Your task to perform on an android device: turn off translation in the chrome app Image 0: 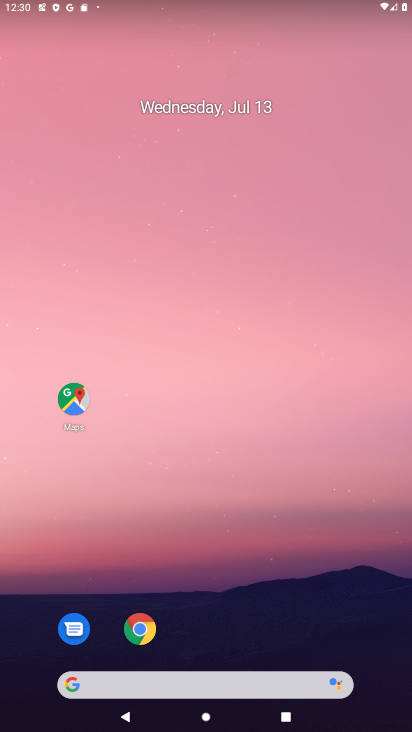
Step 0: drag from (216, 621) to (216, 287)
Your task to perform on an android device: turn off translation in the chrome app Image 1: 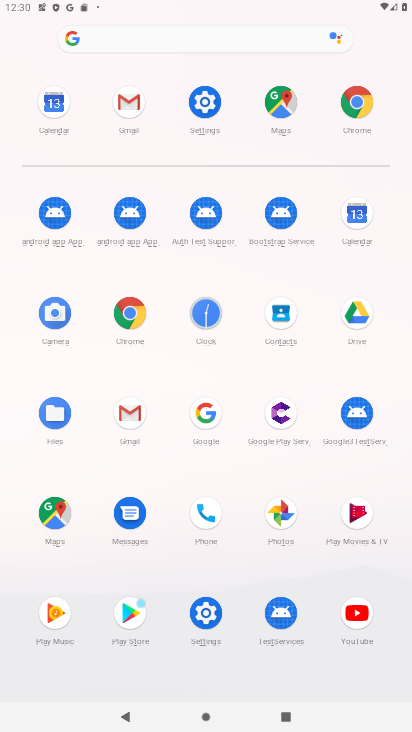
Step 1: click (358, 90)
Your task to perform on an android device: turn off translation in the chrome app Image 2: 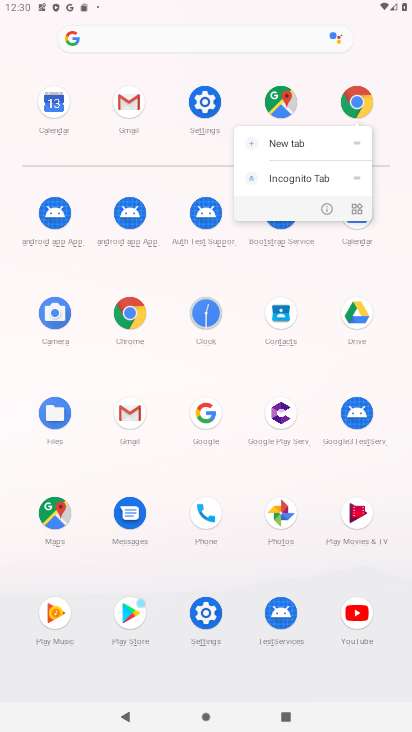
Step 2: click (360, 94)
Your task to perform on an android device: turn off translation in the chrome app Image 3: 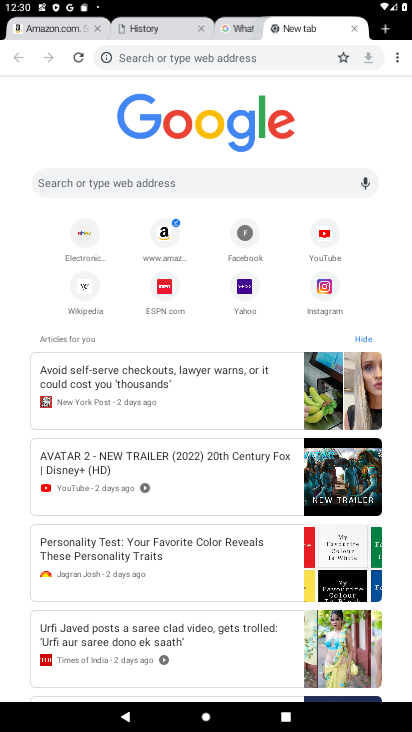
Step 3: click (403, 51)
Your task to perform on an android device: turn off translation in the chrome app Image 4: 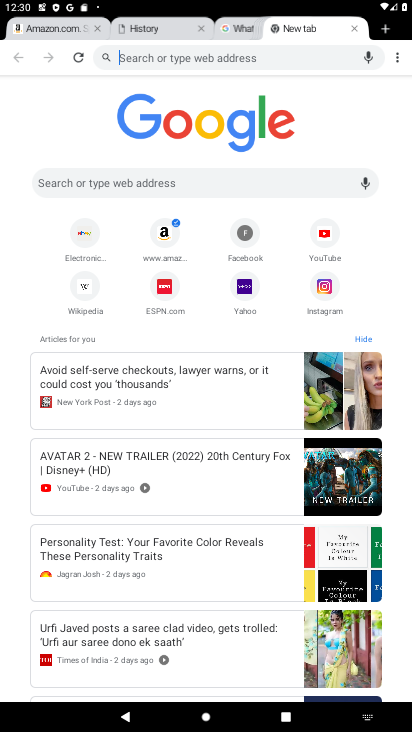
Step 4: click (399, 56)
Your task to perform on an android device: turn off translation in the chrome app Image 5: 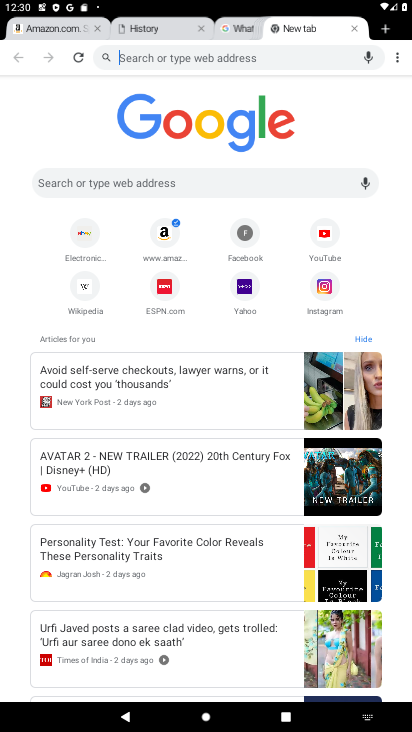
Step 5: click (399, 56)
Your task to perform on an android device: turn off translation in the chrome app Image 6: 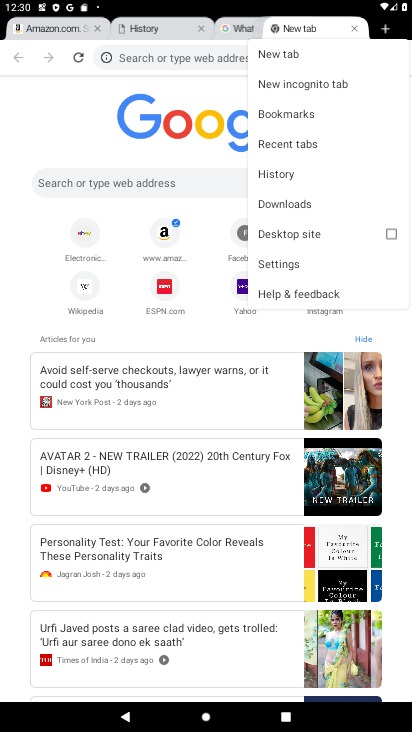
Step 6: click (301, 252)
Your task to perform on an android device: turn off translation in the chrome app Image 7: 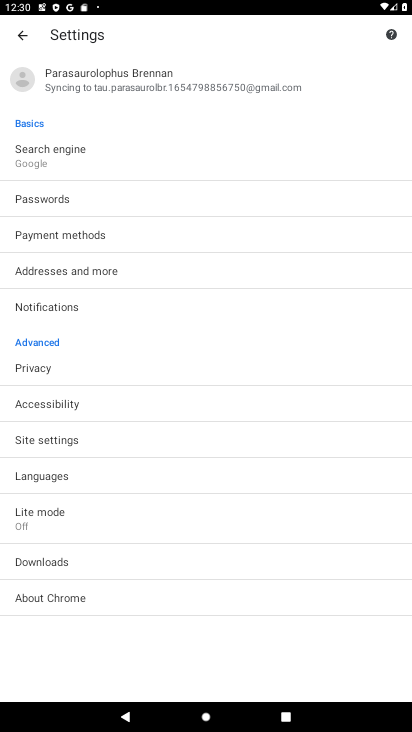
Step 7: click (93, 436)
Your task to perform on an android device: turn off translation in the chrome app Image 8: 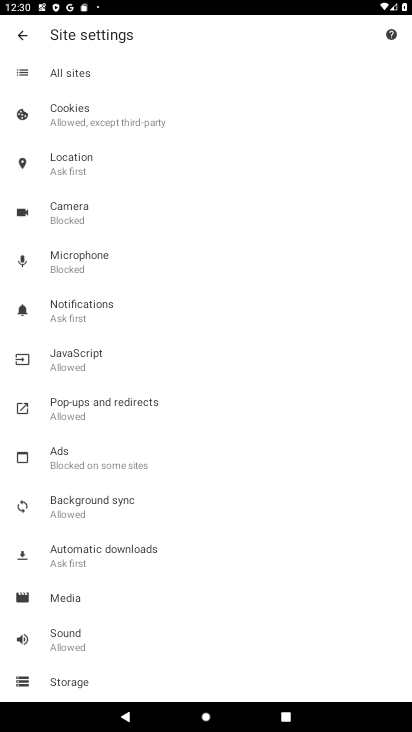
Step 8: click (14, 27)
Your task to perform on an android device: turn off translation in the chrome app Image 9: 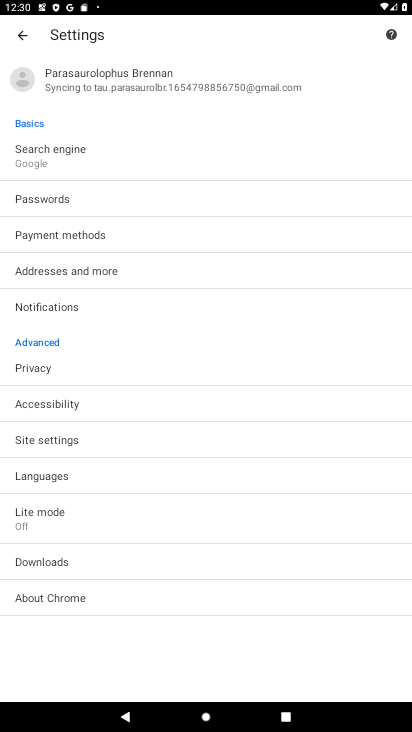
Step 9: click (60, 470)
Your task to perform on an android device: turn off translation in the chrome app Image 10: 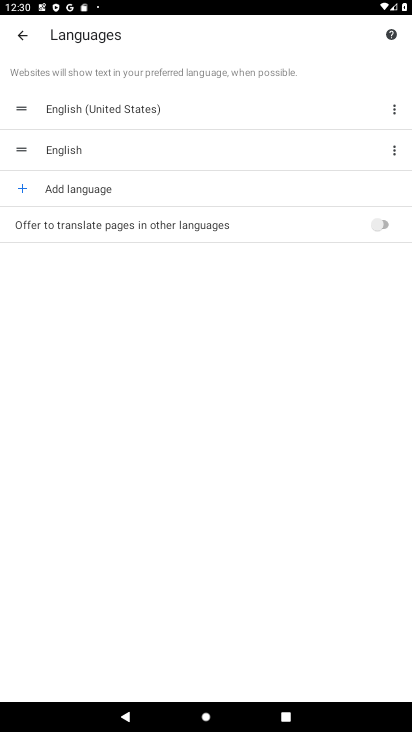
Step 10: click (385, 223)
Your task to perform on an android device: turn off translation in the chrome app Image 11: 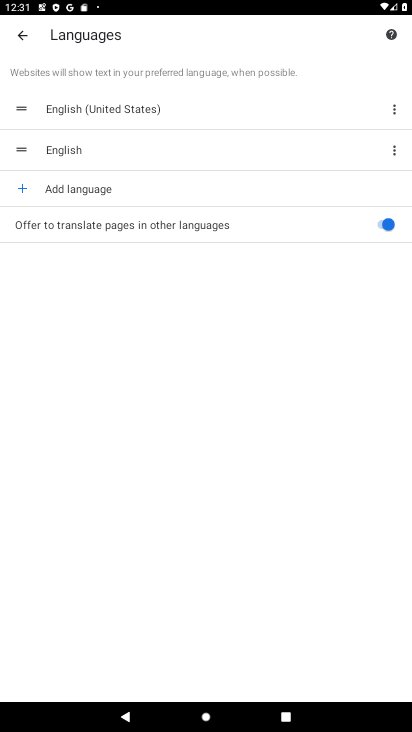
Step 11: task complete